Your task to perform on an android device: Set the phone to "Do not disturb". Image 0: 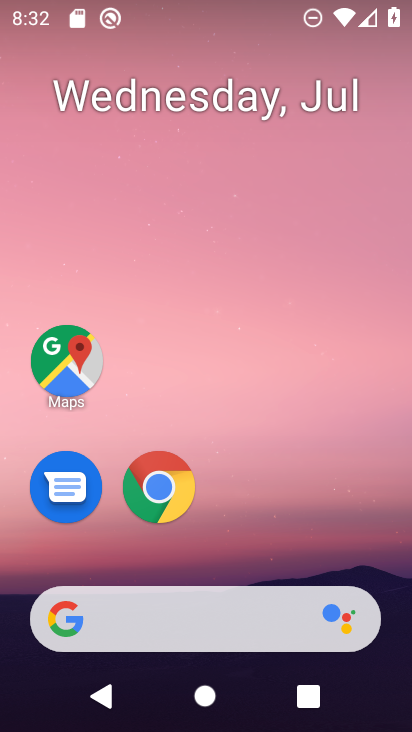
Step 0: drag from (343, 536) to (370, 88)
Your task to perform on an android device: Set the phone to "Do not disturb". Image 1: 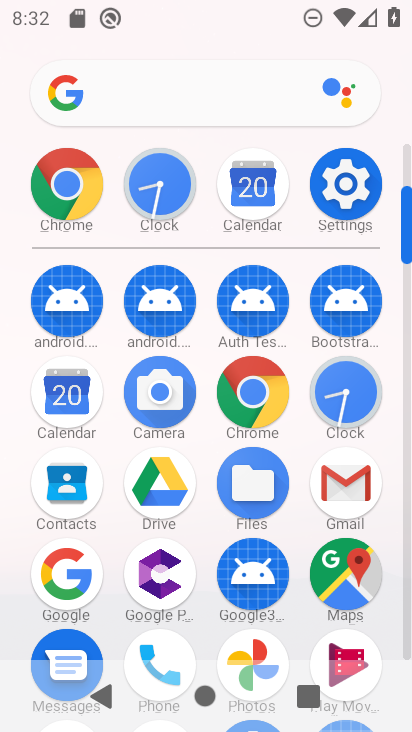
Step 1: click (350, 189)
Your task to perform on an android device: Set the phone to "Do not disturb". Image 2: 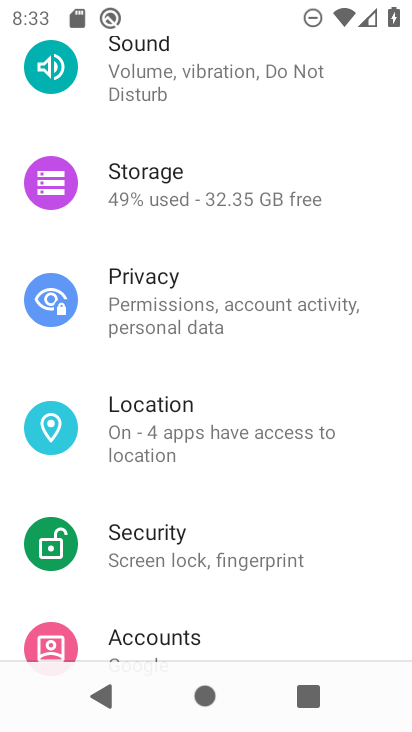
Step 2: drag from (363, 155) to (385, 272)
Your task to perform on an android device: Set the phone to "Do not disturb". Image 3: 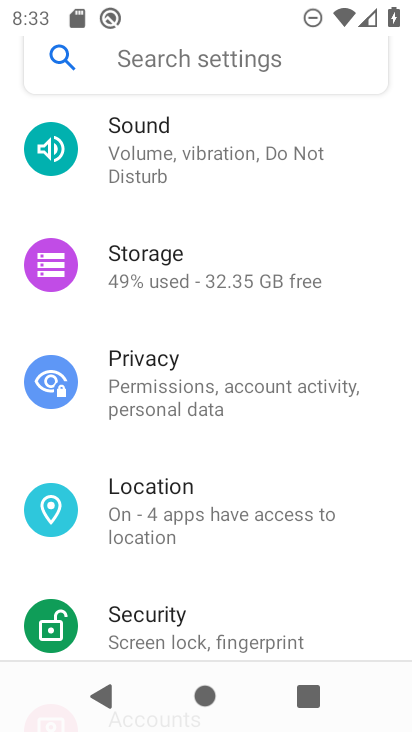
Step 3: drag from (374, 168) to (381, 300)
Your task to perform on an android device: Set the phone to "Do not disturb". Image 4: 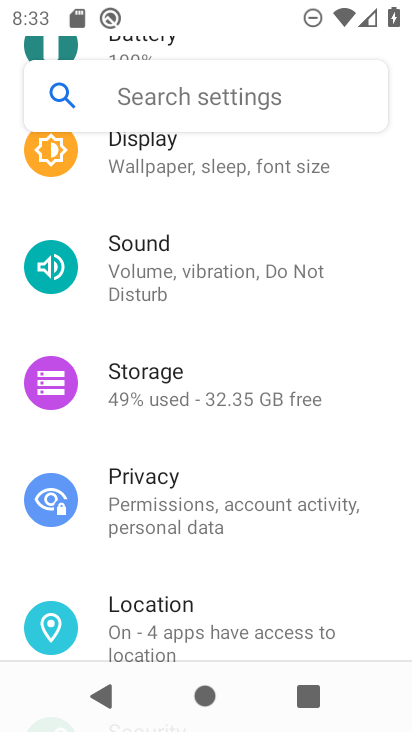
Step 4: drag from (364, 178) to (369, 348)
Your task to perform on an android device: Set the phone to "Do not disturb". Image 5: 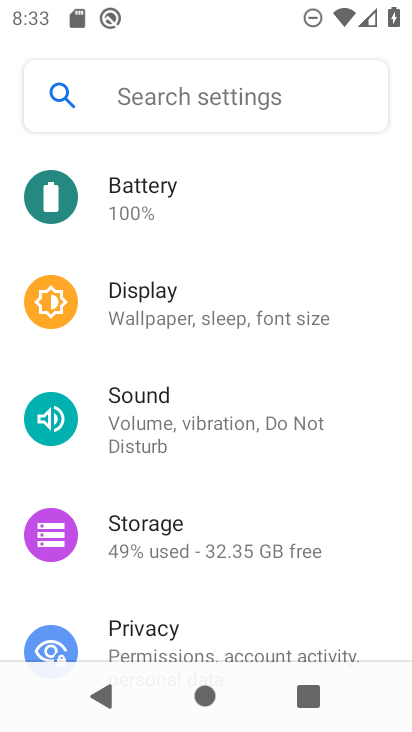
Step 5: drag from (353, 209) to (357, 350)
Your task to perform on an android device: Set the phone to "Do not disturb". Image 6: 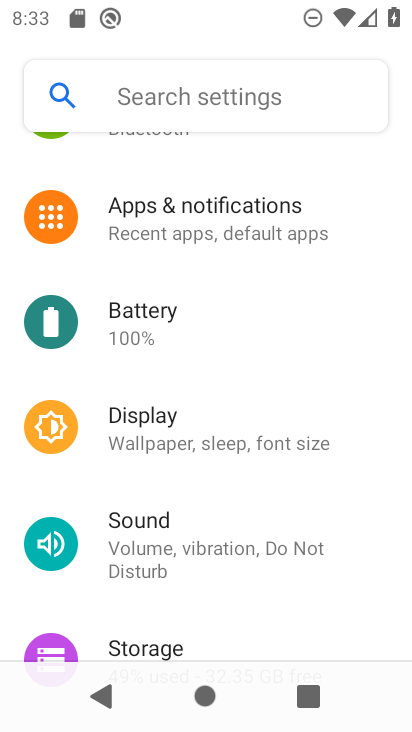
Step 6: drag from (368, 174) to (390, 383)
Your task to perform on an android device: Set the phone to "Do not disturb". Image 7: 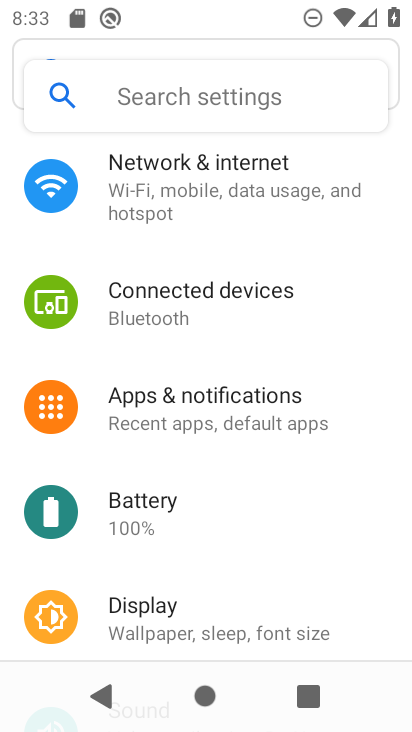
Step 7: drag from (373, 389) to (361, 305)
Your task to perform on an android device: Set the phone to "Do not disturb". Image 8: 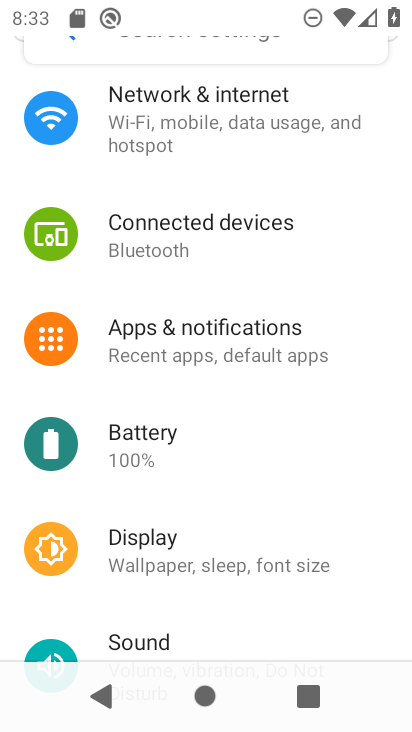
Step 8: drag from (351, 397) to (337, 250)
Your task to perform on an android device: Set the phone to "Do not disturb". Image 9: 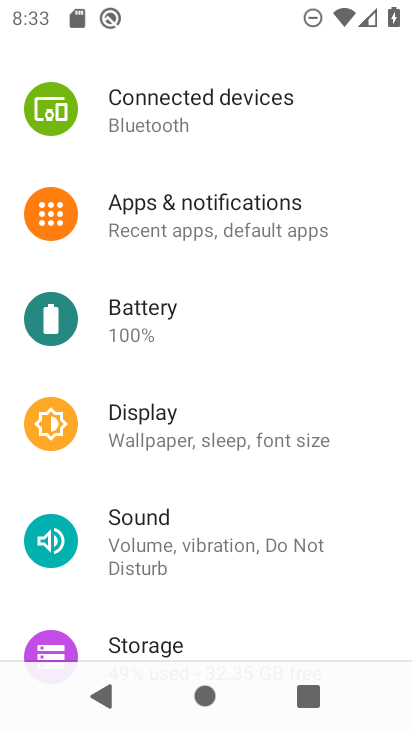
Step 9: drag from (356, 359) to (362, 242)
Your task to perform on an android device: Set the phone to "Do not disturb". Image 10: 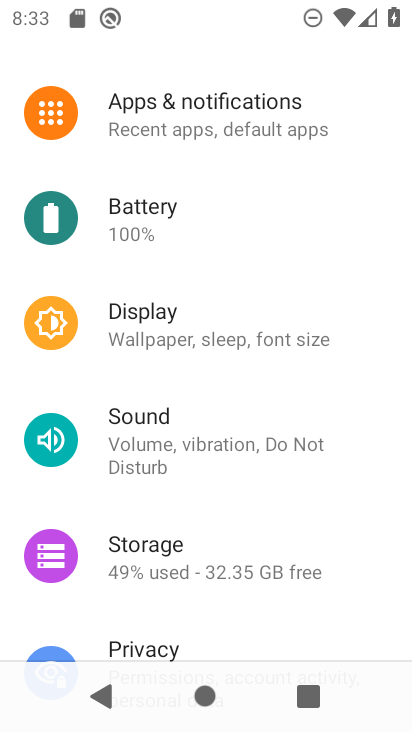
Step 10: click (250, 425)
Your task to perform on an android device: Set the phone to "Do not disturb". Image 11: 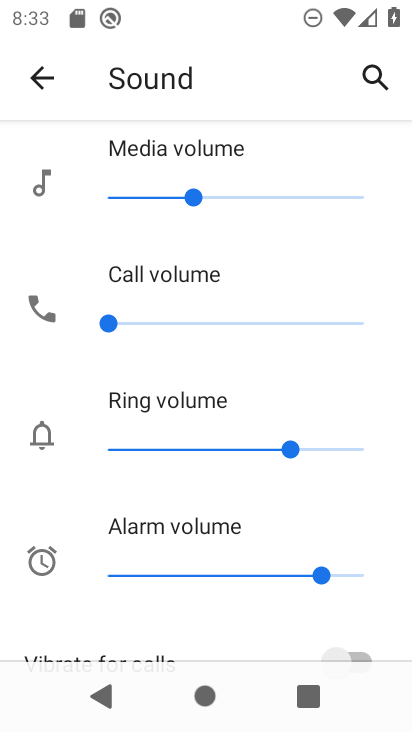
Step 11: task complete